Your task to perform on an android device: Open maps Image 0: 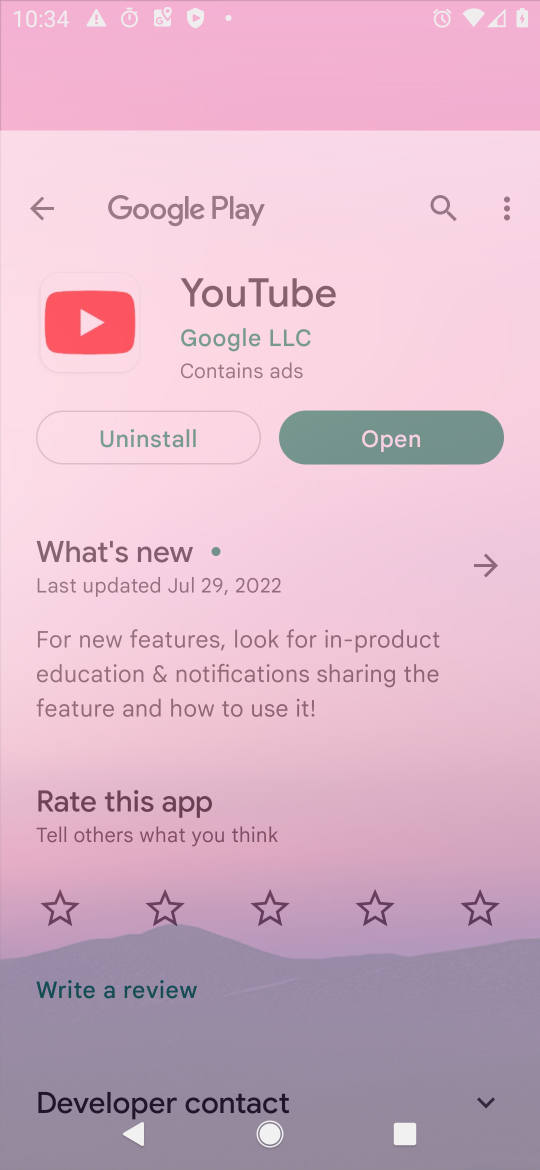
Step 0: press home button
Your task to perform on an android device: Open maps Image 1: 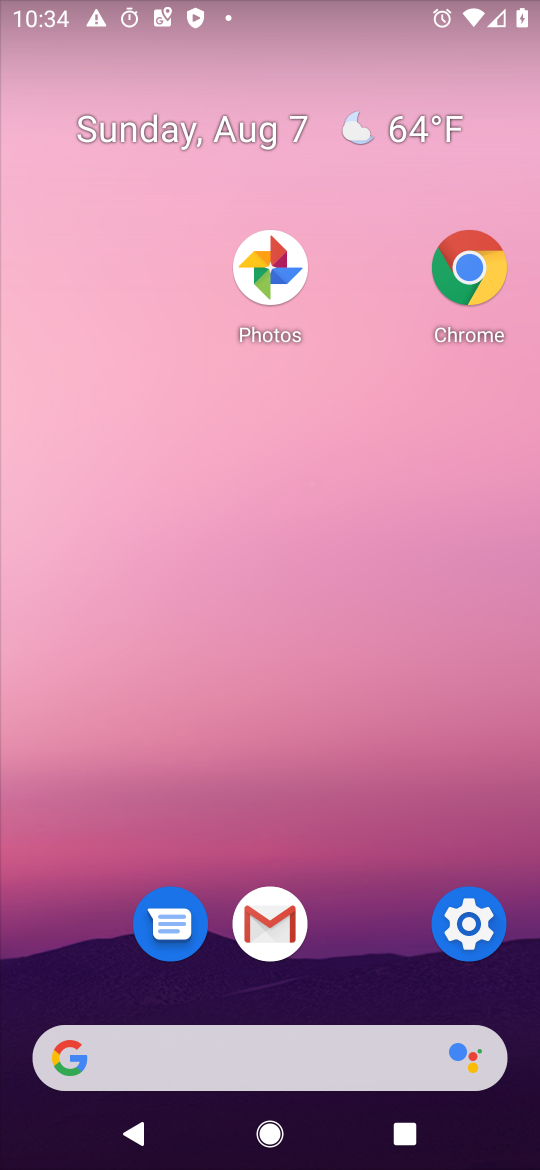
Step 1: drag from (353, 1109) to (73, 340)
Your task to perform on an android device: Open maps Image 2: 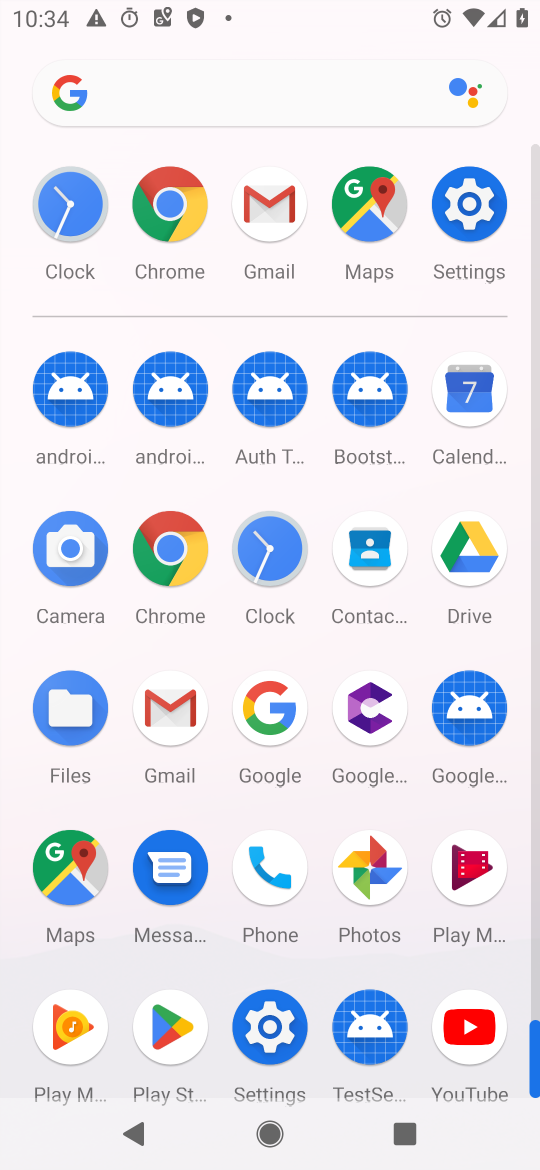
Step 2: drag from (110, 865) to (110, 745)
Your task to perform on an android device: Open maps Image 3: 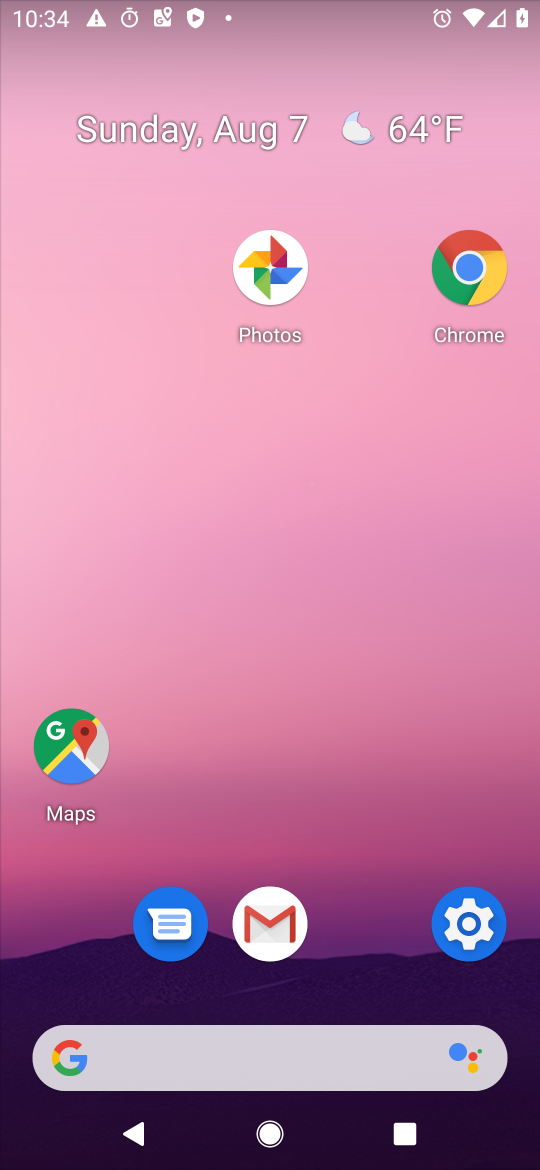
Step 3: click (40, 721)
Your task to perform on an android device: Open maps Image 4: 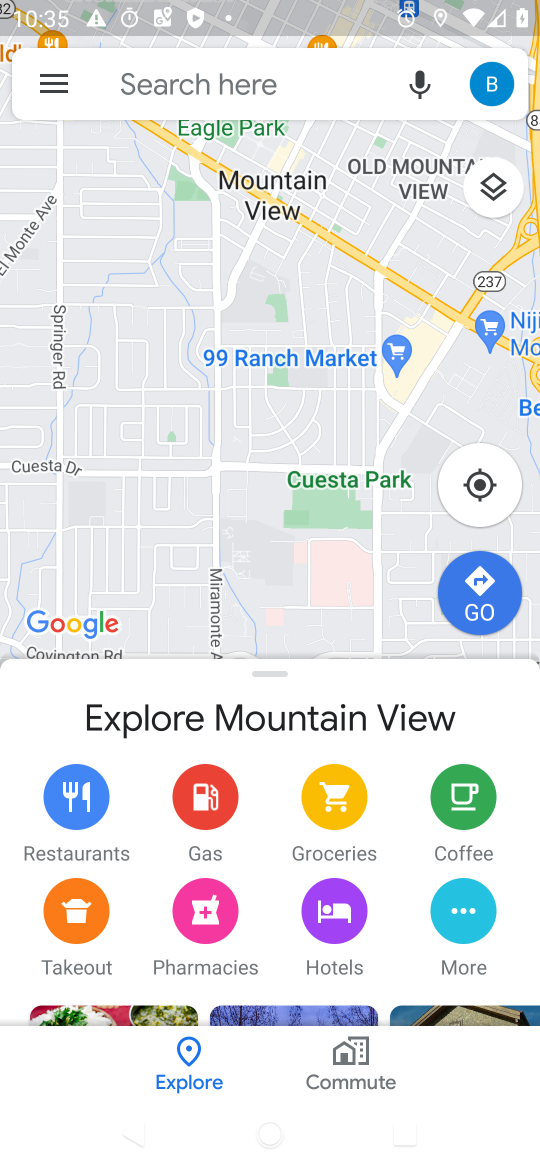
Step 4: task complete